Your task to perform on an android device: visit the assistant section in the google photos Image 0: 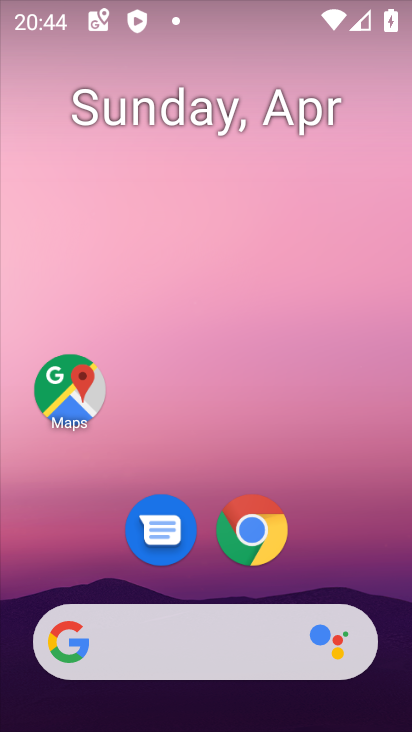
Step 0: drag from (209, 534) to (276, 80)
Your task to perform on an android device: visit the assistant section in the google photos Image 1: 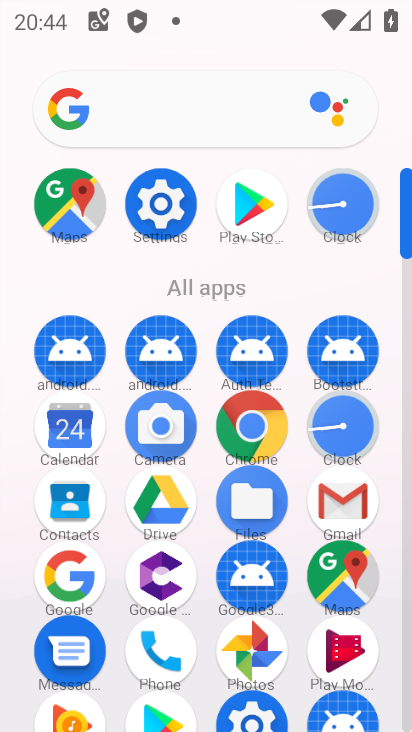
Step 1: click (232, 645)
Your task to perform on an android device: visit the assistant section in the google photos Image 2: 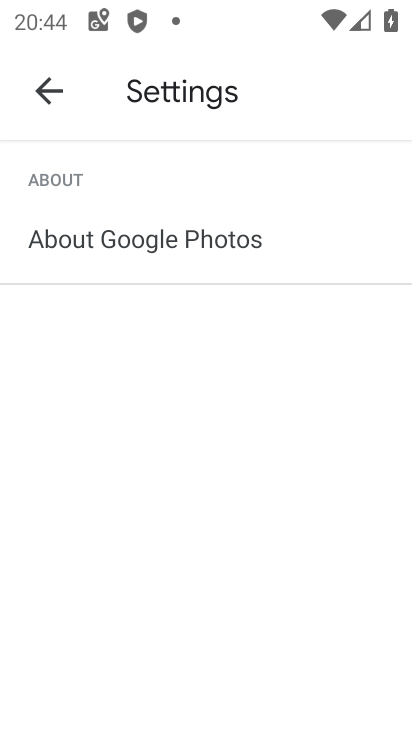
Step 2: click (34, 98)
Your task to perform on an android device: visit the assistant section in the google photos Image 3: 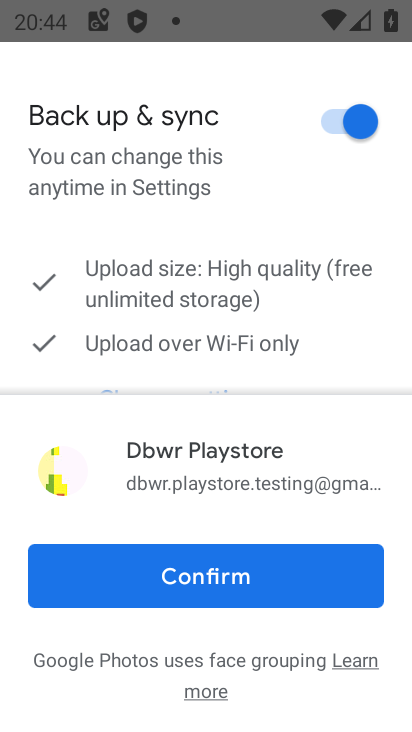
Step 3: click (255, 587)
Your task to perform on an android device: visit the assistant section in the google photos Image 4: 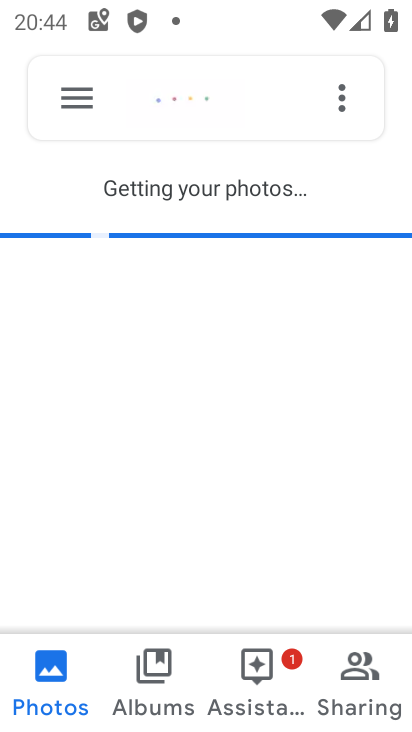
Step 4: click (260, 675)
Your task to perform on an android device: visit the assistant section in the google photos Image 5: 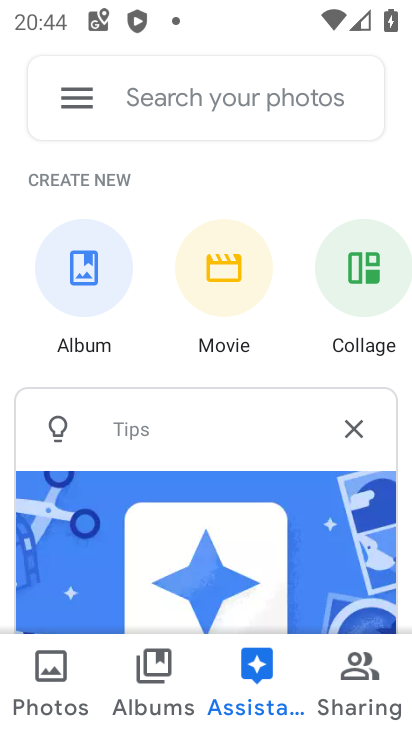
Step 5: task complete